Your task to perform on an android device: turn on sleep mode Image 0: 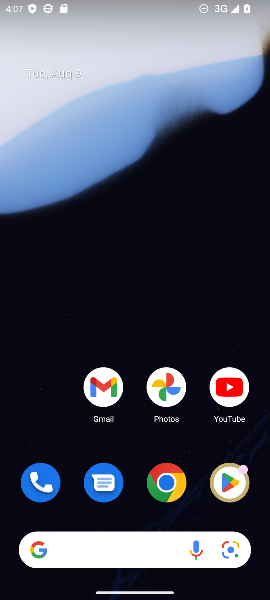
Step 0: drag from (127, 444) to (121, 183)
Your task to perform on an android device: turn on sleep mode Image 1: 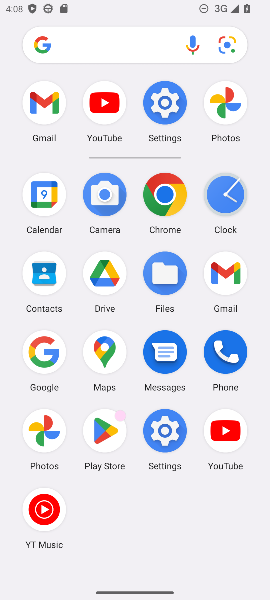
Step 1: click (157, 118)
Your task to perform on an android device: turn on sleep mode Image 2: 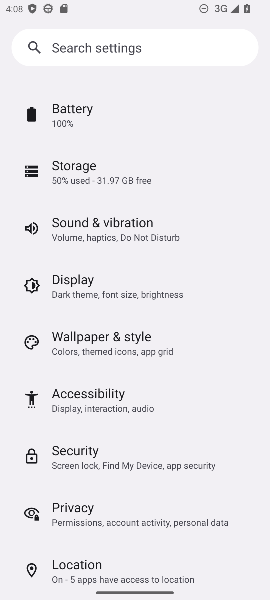
Step 2: click (123, 278)
Your task to perform on an android device: turn on sleep mode Image 3: 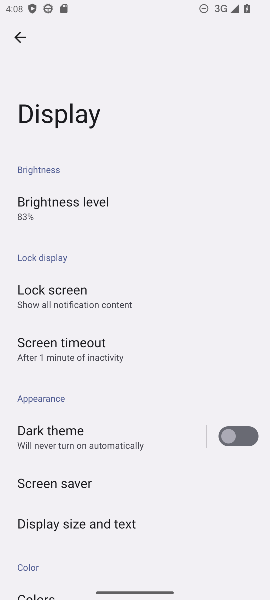
Step 3: click (77, 352)
Your task to perform on an android device: turn on sleep mode Image 4: 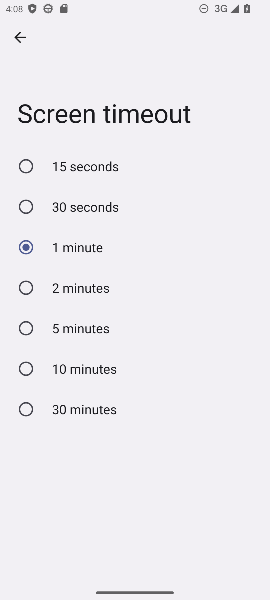
Step 4: click (77, 352)
Your task to perform on an android device: turn on sleep mode Image 5: 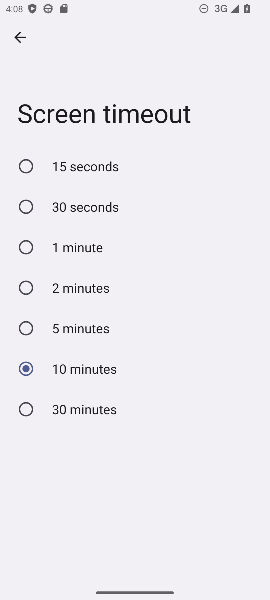
Step 5: task complete